Your task to perform on an android device: Open the web browser Image 0: 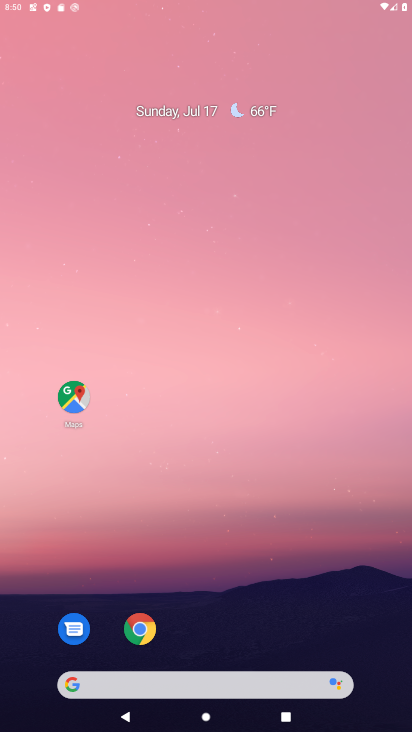
Step 0: press home button
Your task to perform on an android device: Open the web browser Image 1: 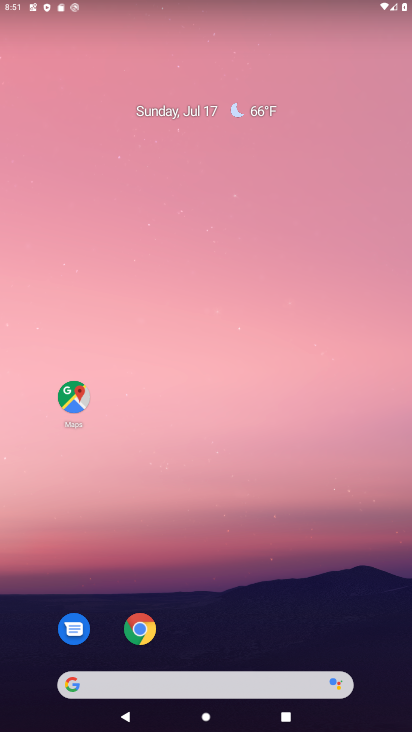
Step 1: click (141, 624)
Your task to perform on an android device: Open the web browser Image 2: 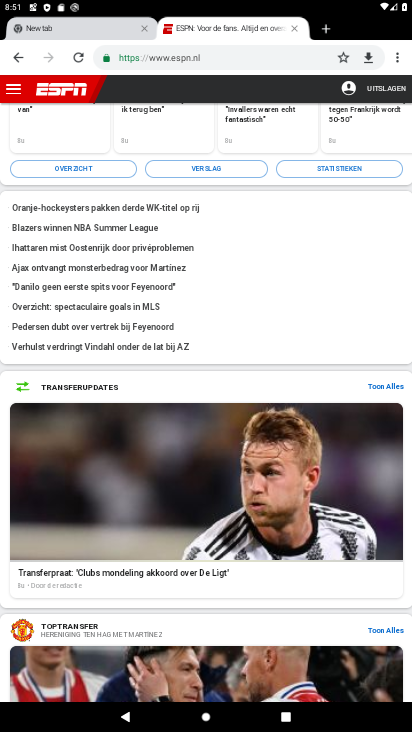
Step 2: click (327, 24)
Your task to perform on an android device: Open the web browser Image 3: 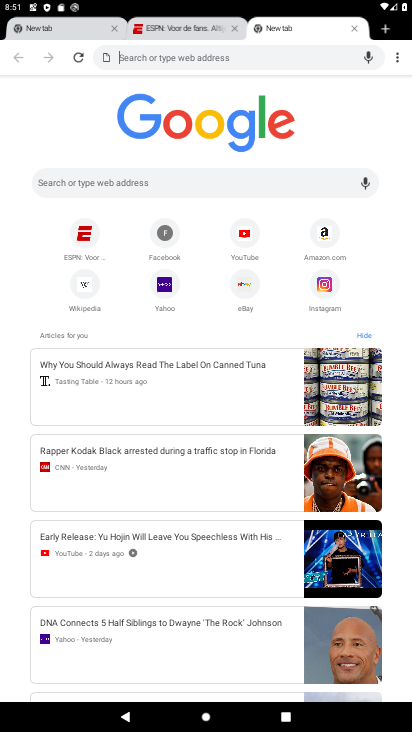
Step 3: task complete